Your task to perform on an android device: turn on location history Image 0: 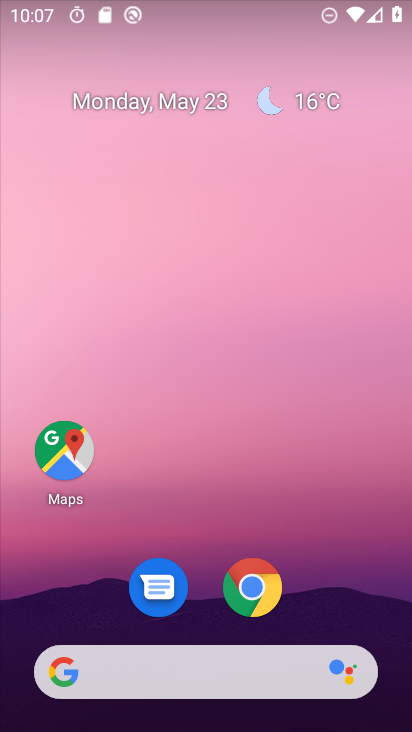
Step 0: drag from (213, 561) to (213, 75)
Your task to perform on an android device: turn on location history Image 1: 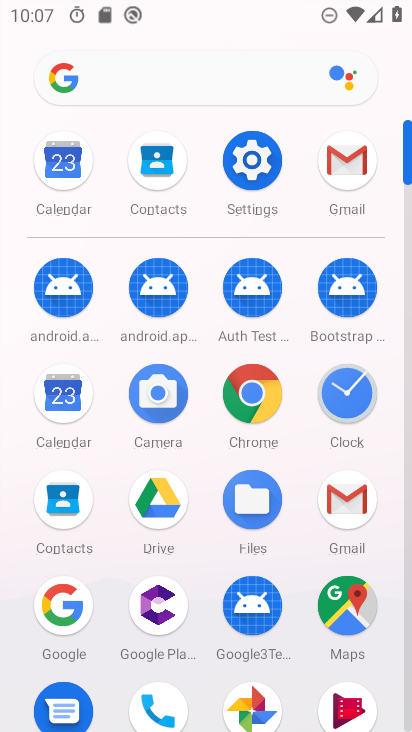
Step 1: click (250, 162)
Your task to perform on an android device: turn on location history Image 2: 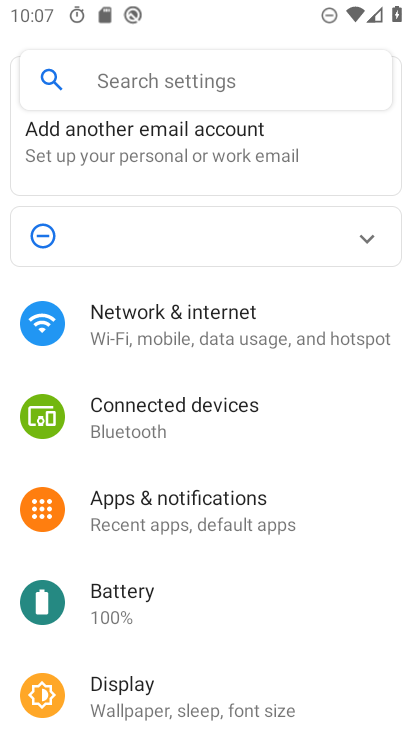
Step 2: drag from (157, 582) to (251, 120)
Your task to perform on an android device: turn on location history Image 3: 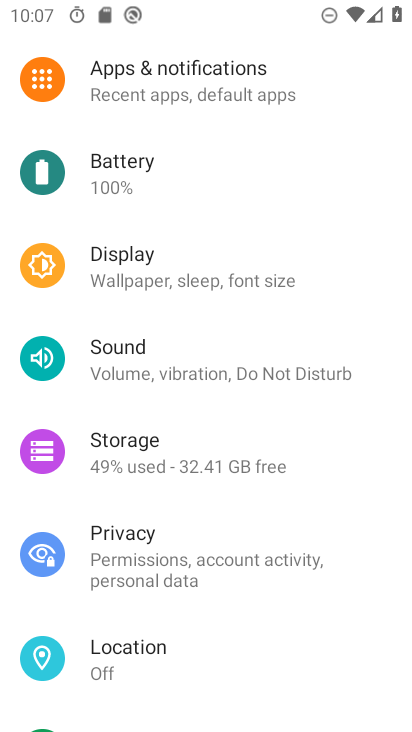
Step 3: click (124, 663)
Your task to perform on an android device: turn on location history Image 4: 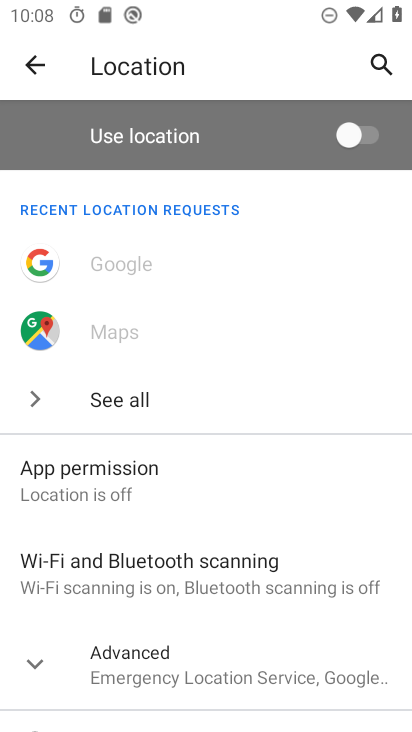
Step 4: click (222, 654)
Your task to perform on an android device: turn on location history Image 5: 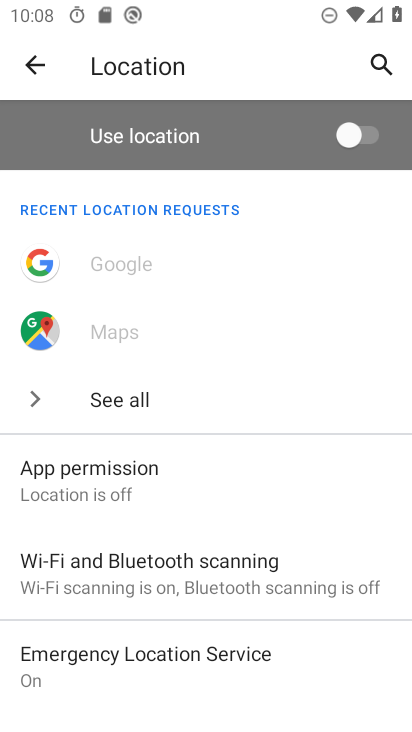
Step 5: drag from (158, 628) to (269, 148)
Your task to perform on an android device: turn on location history Image 6: 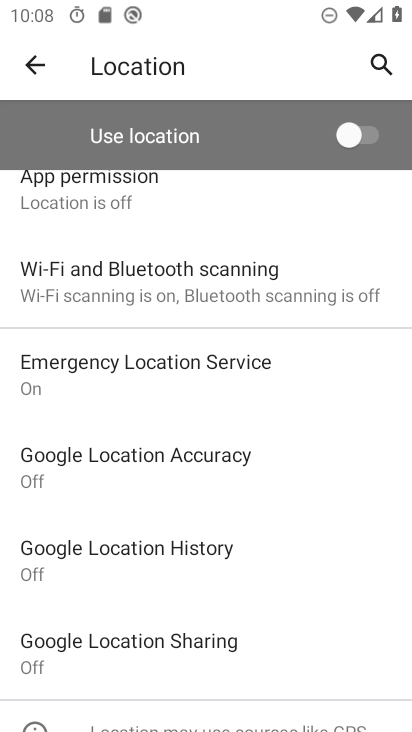
Step 6: click (122, 564)
Your task to perform on an android device: turn on location history Image 7: 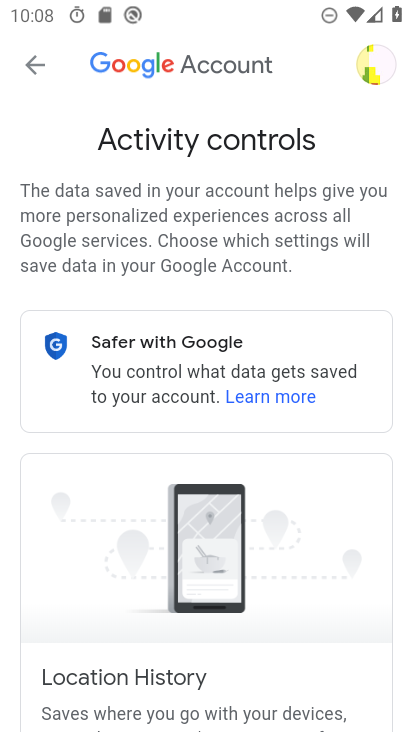
Step 7: drag from (215, 649) to (326, 47)
Your task to perform on an android device: turn on location history Image 8: 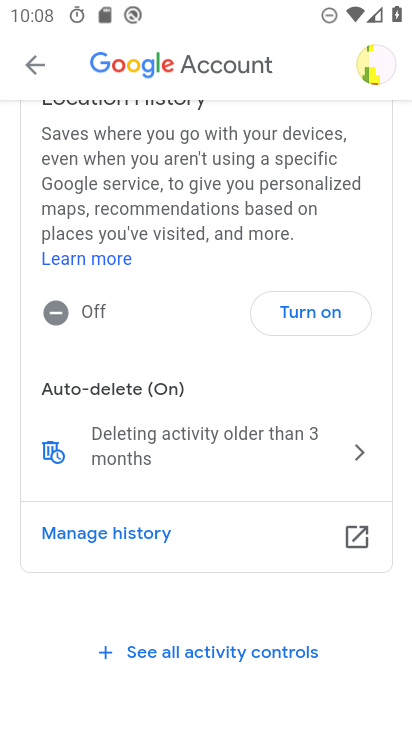
Step 8: click (312, 318)
Your task to perform on an android device: turn on location history Image 9: 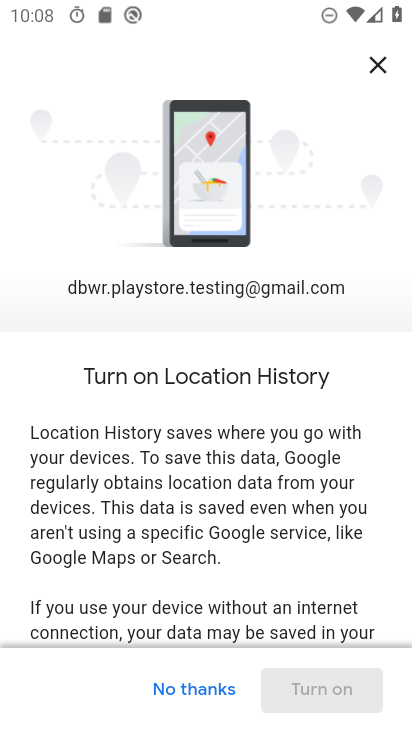
Step 9: drag from (231, 548) to (303, 1)
Your task to perform on an android device: turn on location history Image 10: 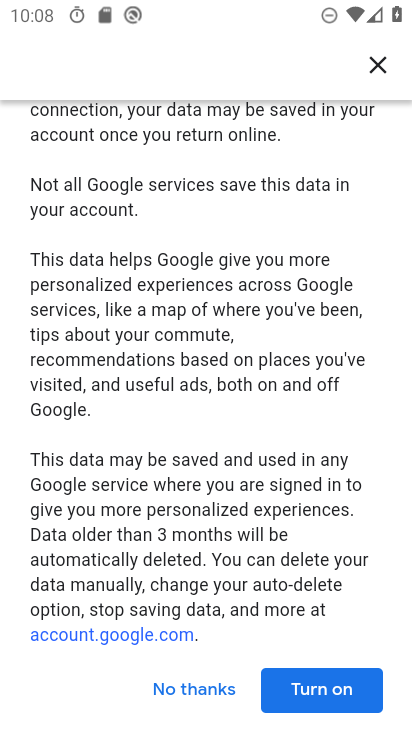
Step 10: drag from (284, 570) to (346, 63)
Your task to perform on an android device: turn on location history Image 11: 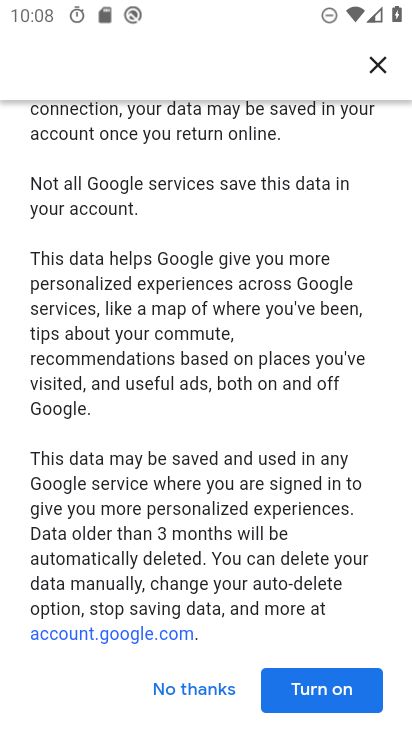
Step 11: click (345, 702)
Your task to perform on an android device: turn on location history Image 12: 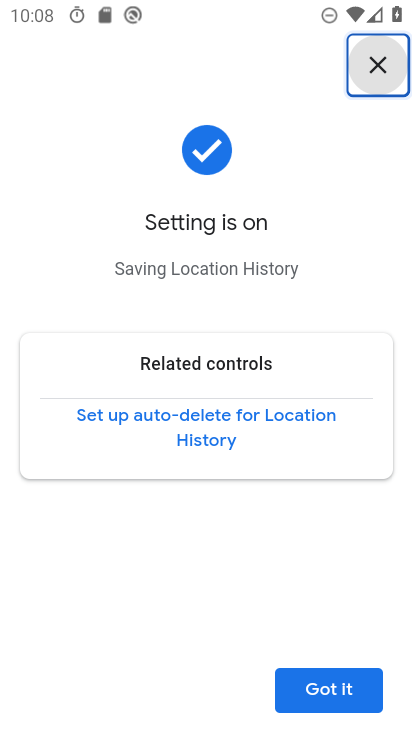
Step 12: task complete